Your task to perform on an android device: turn pop-ups off in chrome Image 0: 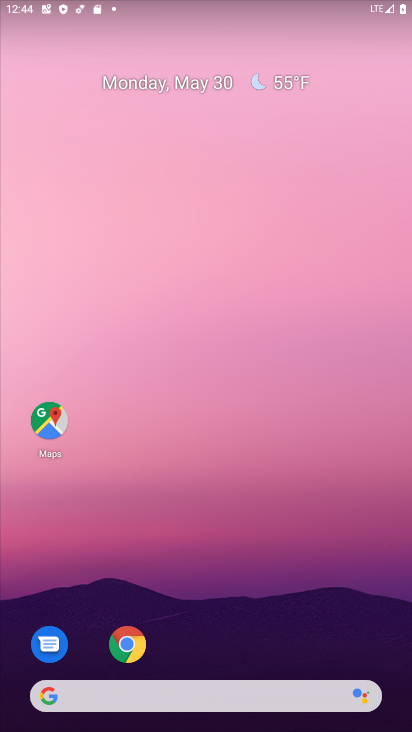
Step 0: click (137, 631)
Your task to perform on an android device: turn pop-ups off in chrome Image 1: 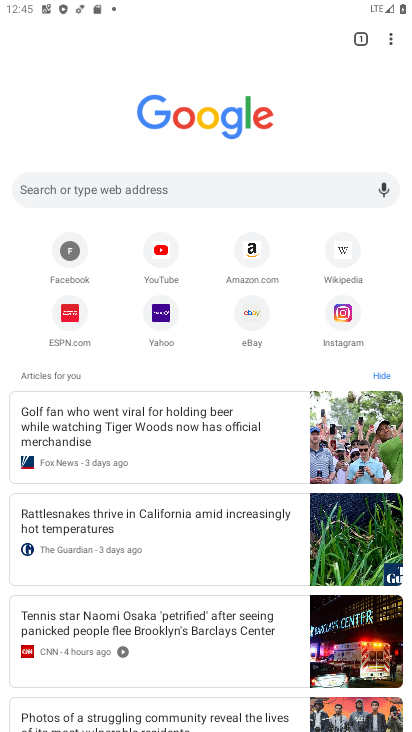
Step 1: click (401, 35)
Your task to perform on an android device: turn pop-ups off in chrome Image 2: 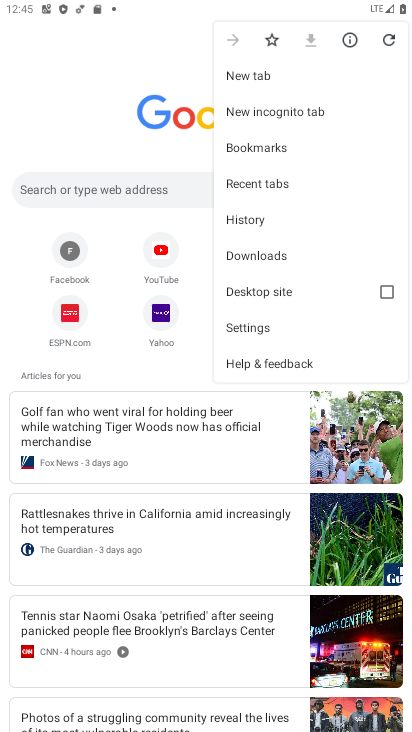
Step 2: click (254, 312)
Your task to perform on an android device: turn pop-ups off in chrome Image 3: 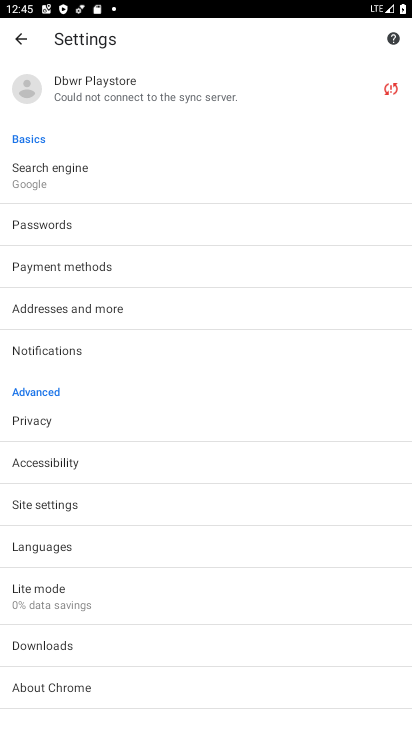
Step 3: drag from (146, 612) to (147, 460)
Your task to perform on an android device: turn pop-ups off in chrome Image 4: 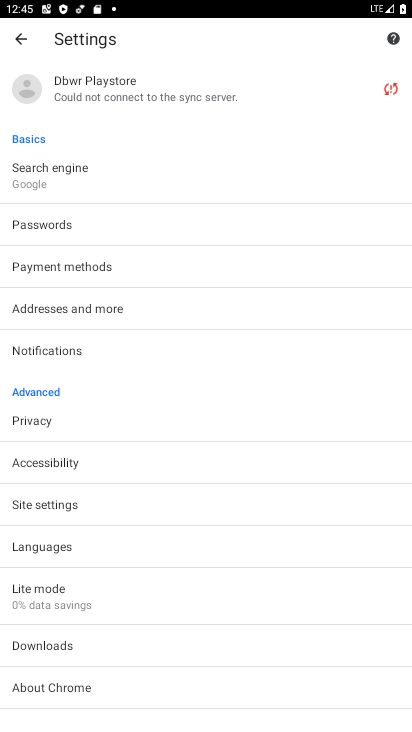
Step 4: click (174, 513)
Your task to perform on an android device: turn pop-ups off in chrome Image 5: 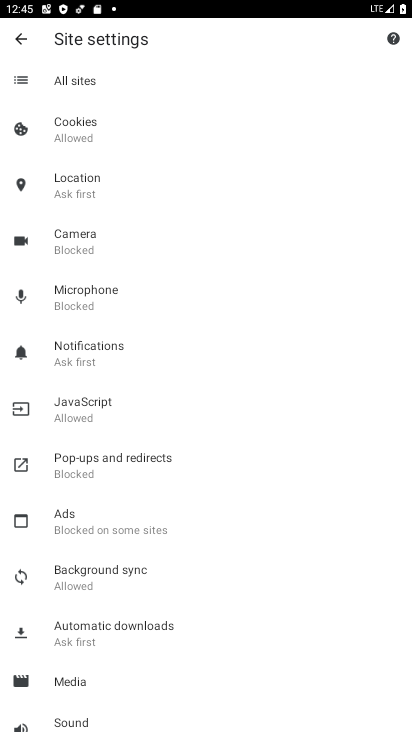
Step 5: task complete